Your task to perform on an android device: see sites visited before in the chrome app Image 0: 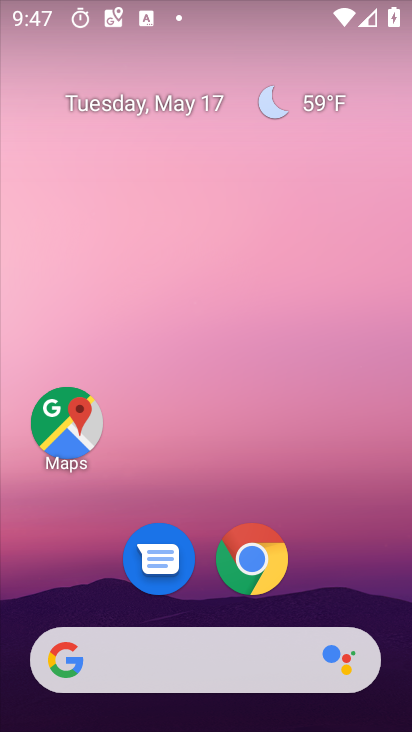
Step 0: drag from (195, 662) to (268, 127)
Your task to perform on an android device: see sites visited before in the chrome app Image 1: 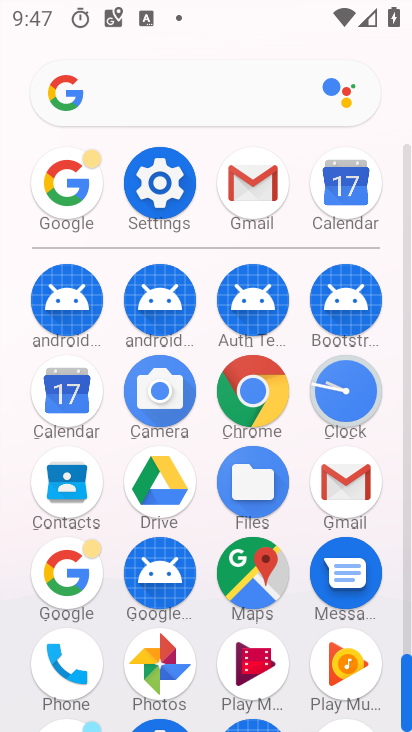
Step 1: click (256, 396)
Your task to perform on an android device: see sites visited before in the chrome app Image 2: 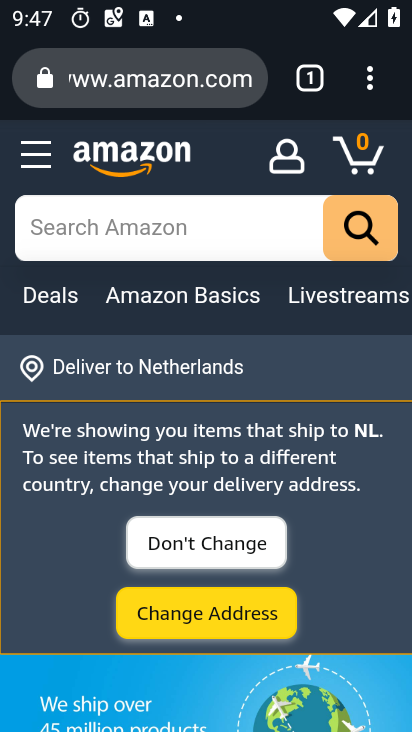
Step 2: click (370, 92)
Your task to perform on an android device: see sites visited before in the chrome app Image 3: 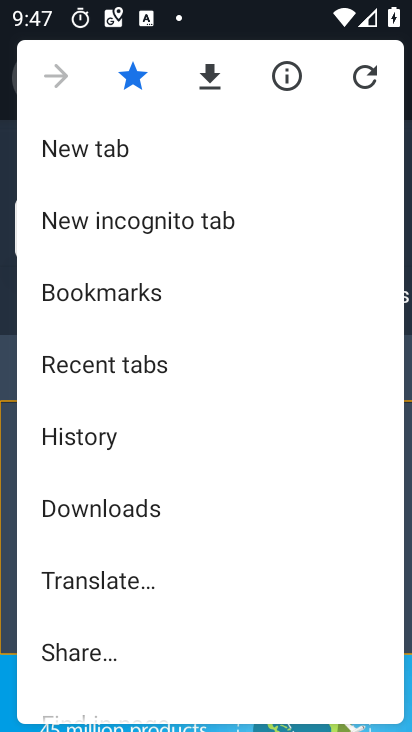
Step 3: drag from (379, 248) to (379, 606)
Your task to perform on an android device: see sites visited before in the chrome app Image 4: 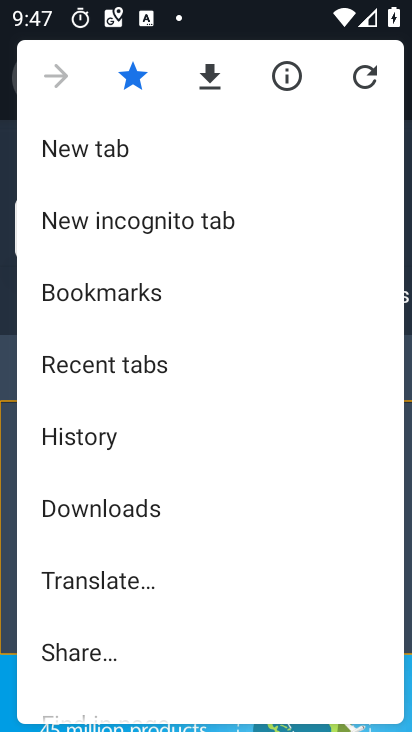
Step 4: click (121, 437)
Your task to perform on an android device: see sites visited before in the chrome app Image 5: 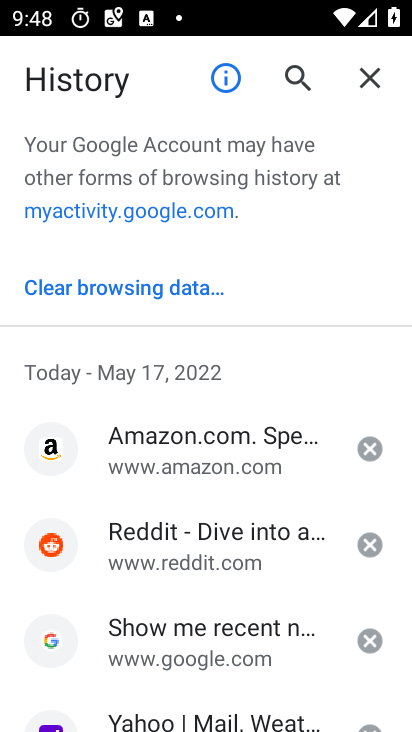
Step 5: task complete